Your task to perform on an android device: see creations saved in the google photos Image 0: 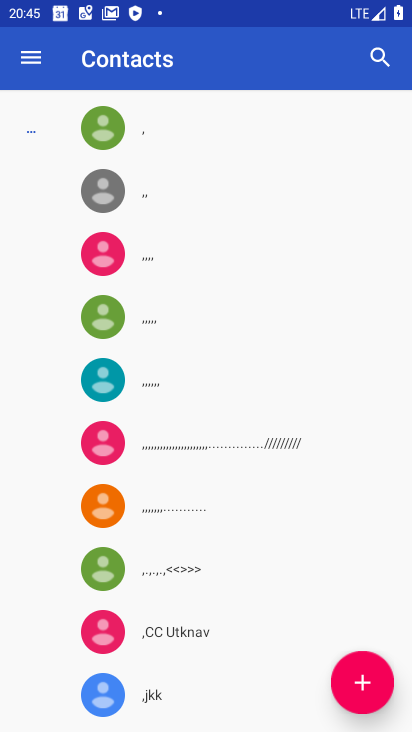
Step 0: press home button
Your task to perform on an android device: see creations saved in the google photos Image 1: 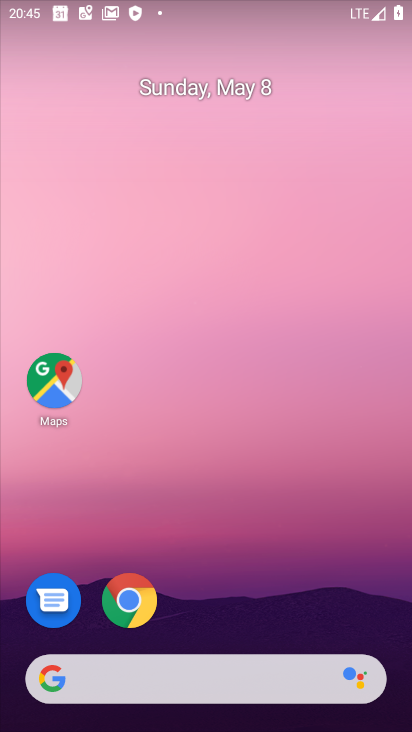
Step 1: drag from (236, 675) to (274, 342)
Your task to perform on an android device: see creations saved in the google photos Image 2: 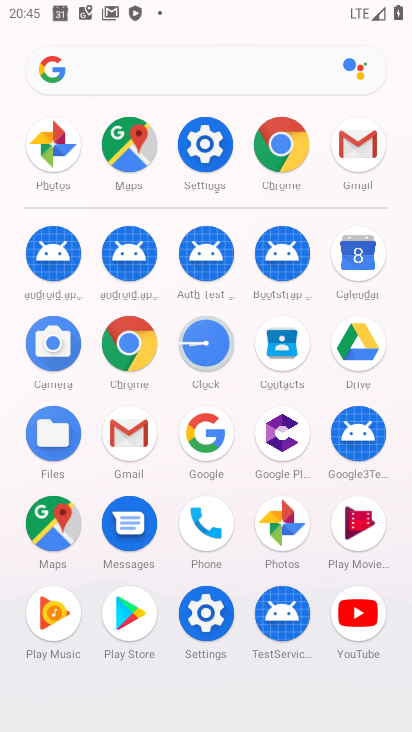
Step 2: click (270, 518)
Your task to perform on an android device: see creations saved in the google photos Image 3: 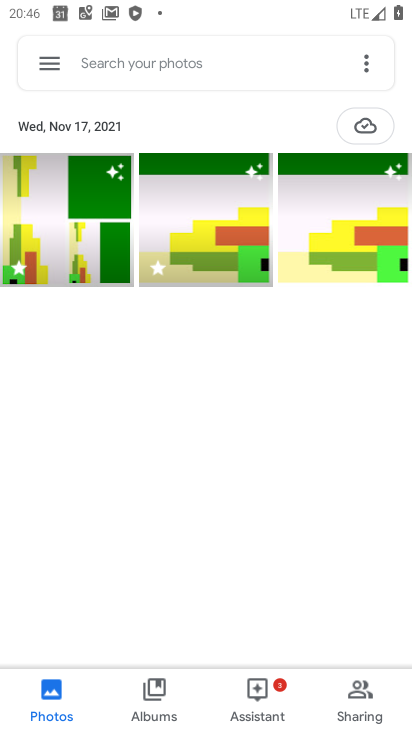
Step 3: click (198, 243)
Your task to perform on an android device: see creations saved in the google photos Image 4: 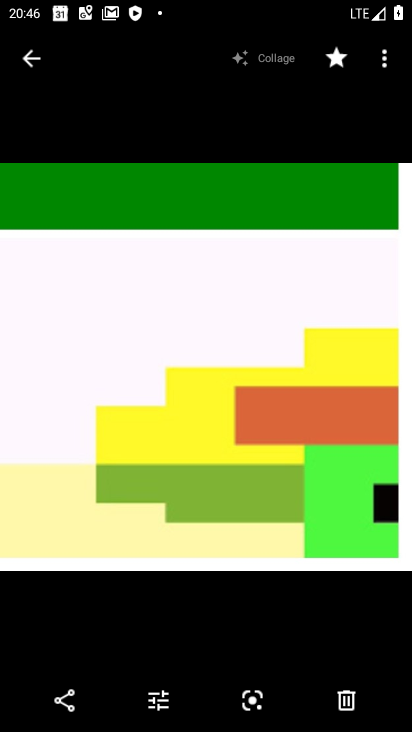
Step 4: click (388, 45)
Your task to perform on an android device: see creations saved in the google photos Image 5: 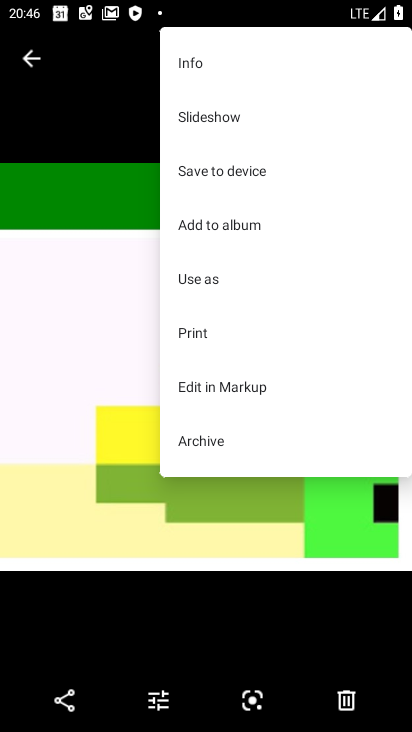
Step 5: click (223, 173)
Your task to perform on an android device: see creations saved in the google photos Image 6: 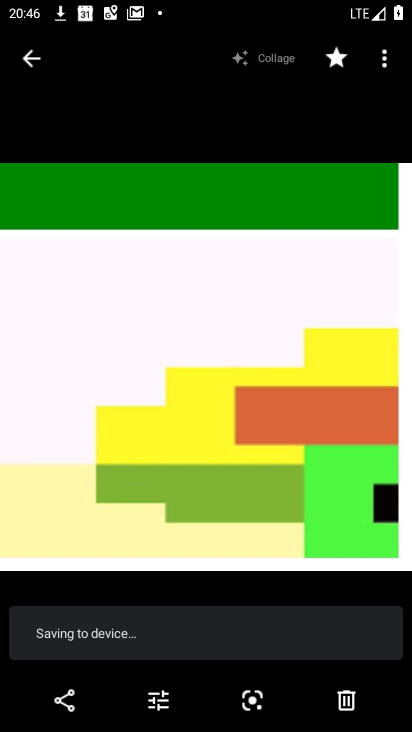
Step 6: task complete